Your task to perform on an android device: toggle sleep mode Image 0: 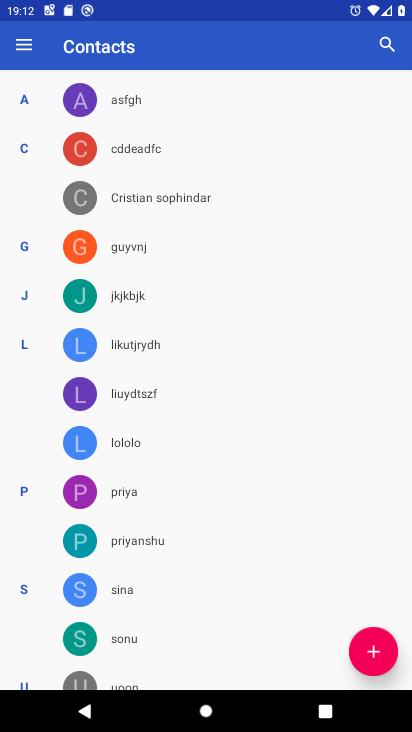
Step 0: press home button
Your task to perform on an android device: toggle sleep mode Image 1: 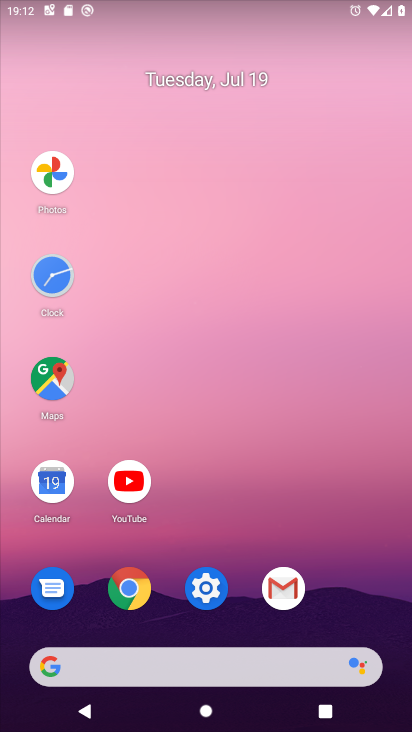
Step 1: click (204, 593)
Your task to perform on an android device: toggle sleep mode Image 2: 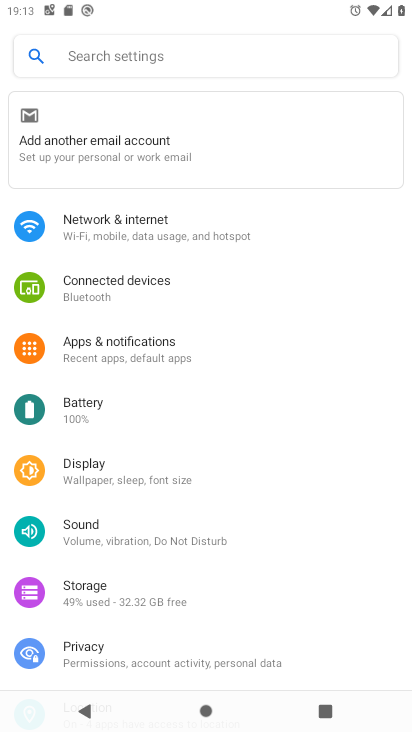
Step 2: click (93, 467)
Your task to perform on an android device: toggle sleep mode Image 3: 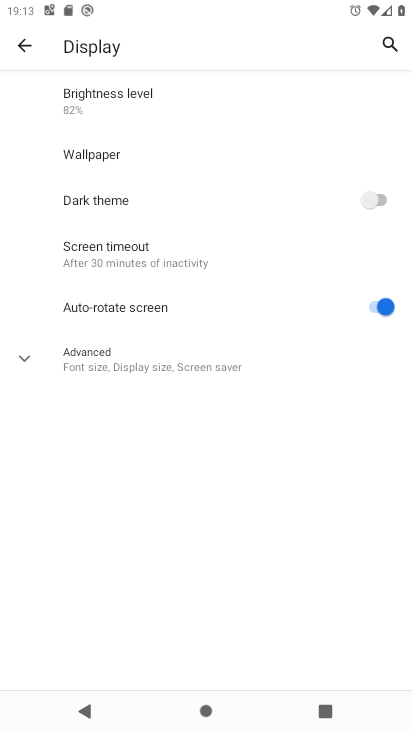
Step 3: task complete